Your task to perform on an android device: open sync settings in chrome Image 0: 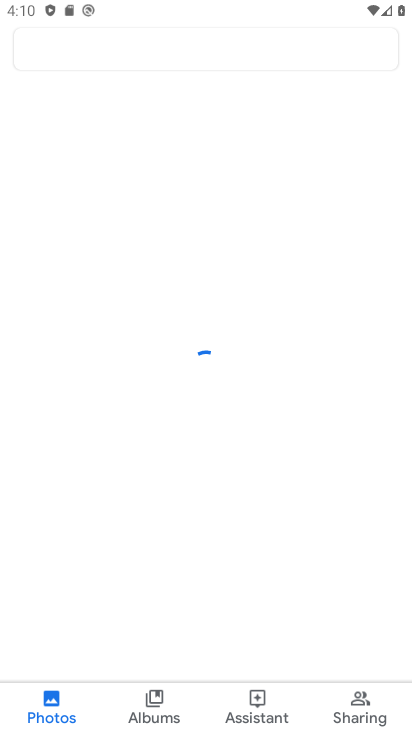
Step 0: press home button
Your task to perform on an android device: open sync settings in chrome Image 1: 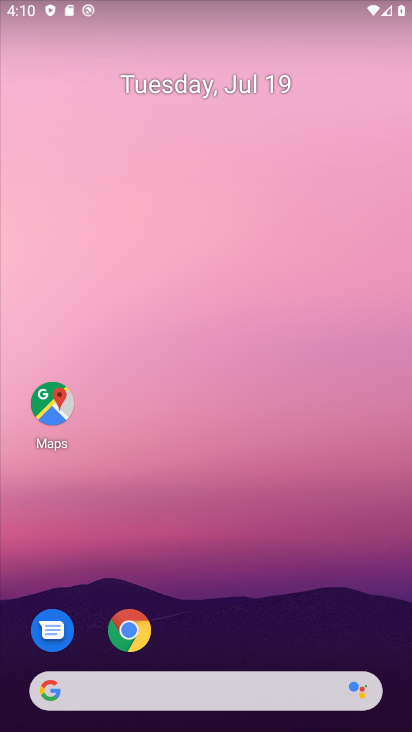
Step 1: click (129, 630)
Your task to perform on an android device: open sync settings in chrome Image 2: 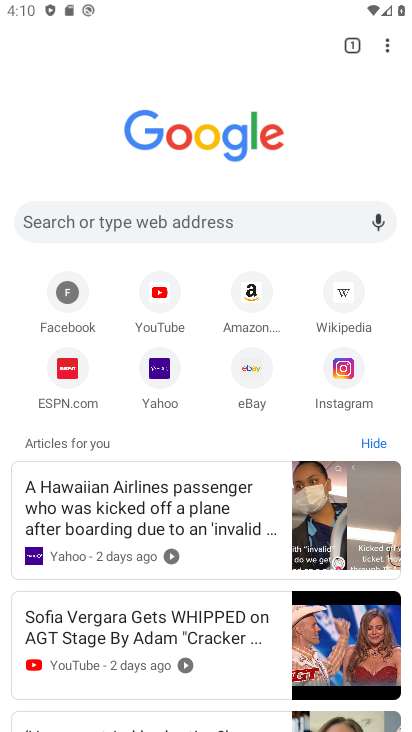
Step 2: click (388, 42)
Your task to perform on an android device: open sync settings in chrome Image 3: 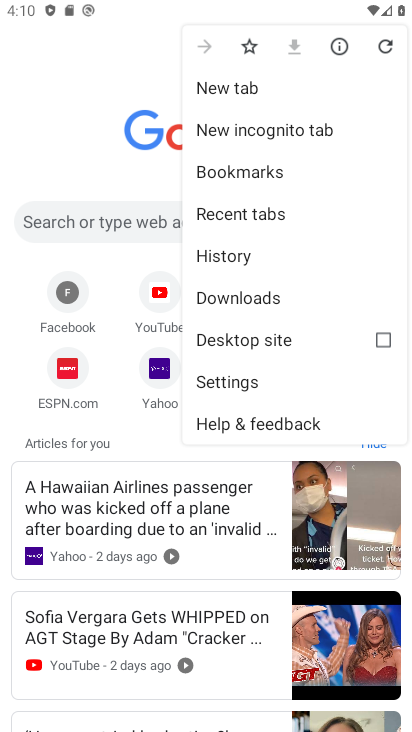
Step 3: click (223, 377)
Your task to perform on an android device: open sync settings in chrome Image 4: 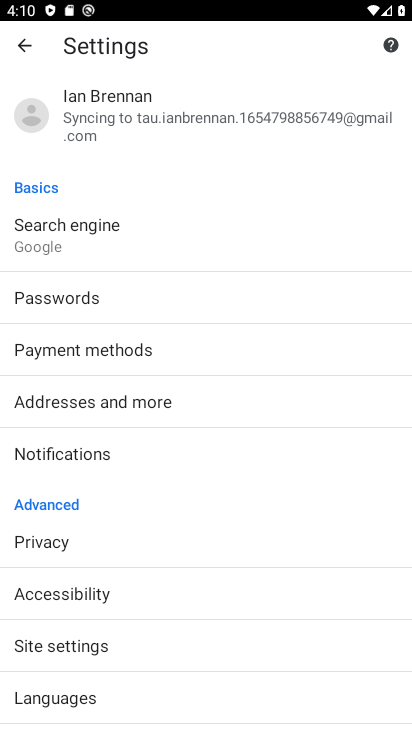
Step 4: click (185, 120)
Your task to perform on an android device: open sync settings in chrome Image 5: 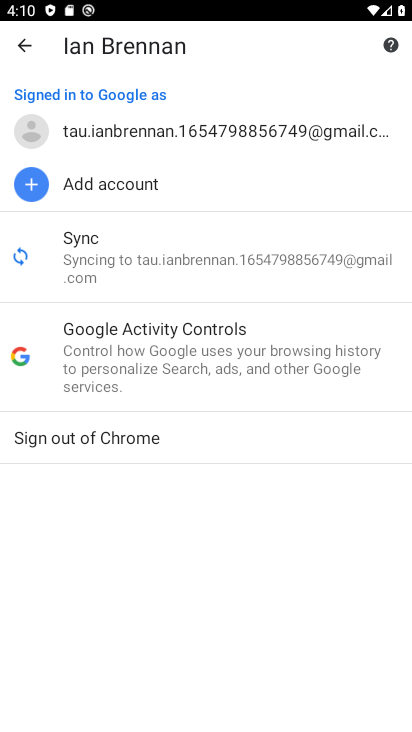
Step 5: click (137, 258)
Your task to perform on an android device: open sync settings in chrome Image 6: 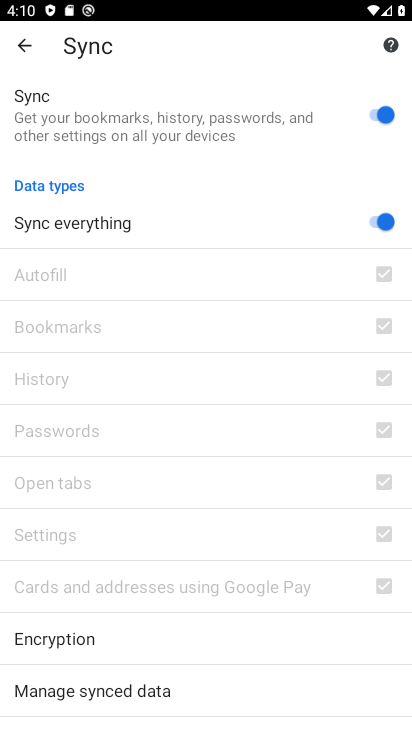
Step 6: task complete